Your task to perform on an android device: Check the weather Image 0: 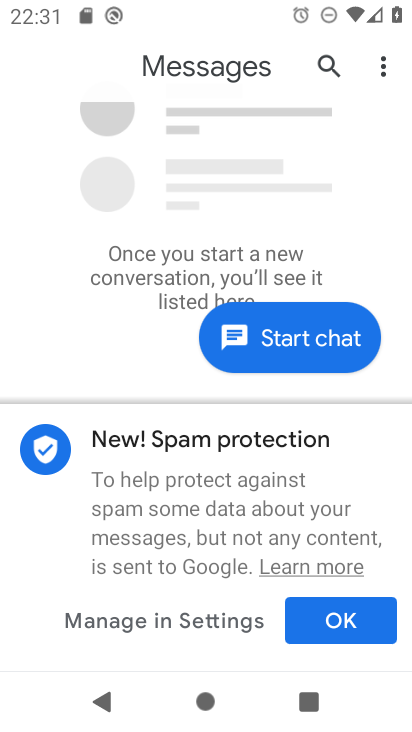
Step 0: press home button
Your task to perform on an android device: Check the weather Image 1: 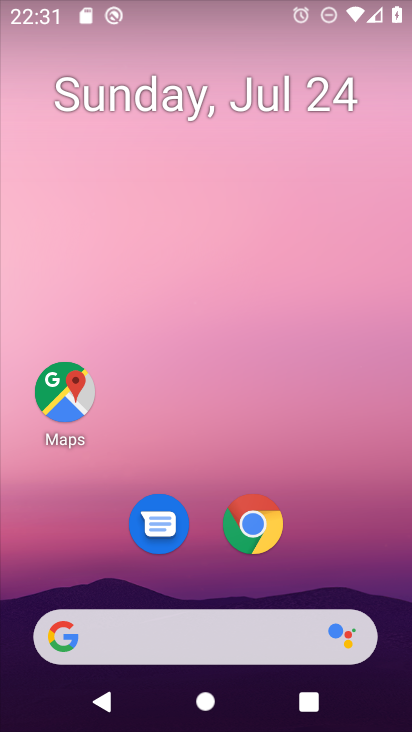
Step 1: drag from (150, 635) to (241, 67)
Your task to perform on an android device: Check the weather Image 2: 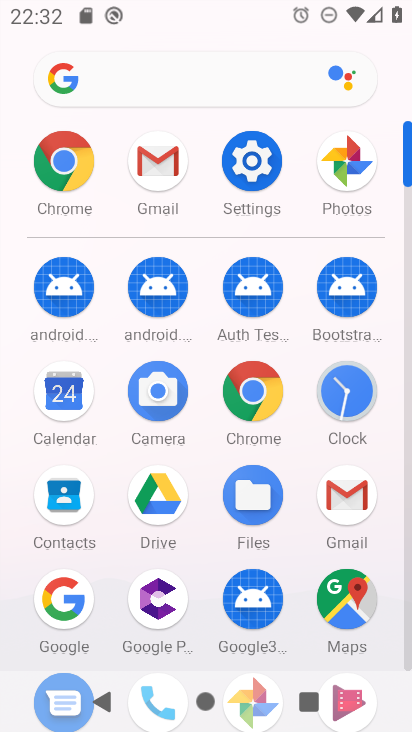
Step 2: click (77, 601)
Your task to perform on an android device: Check the weather Image 3: 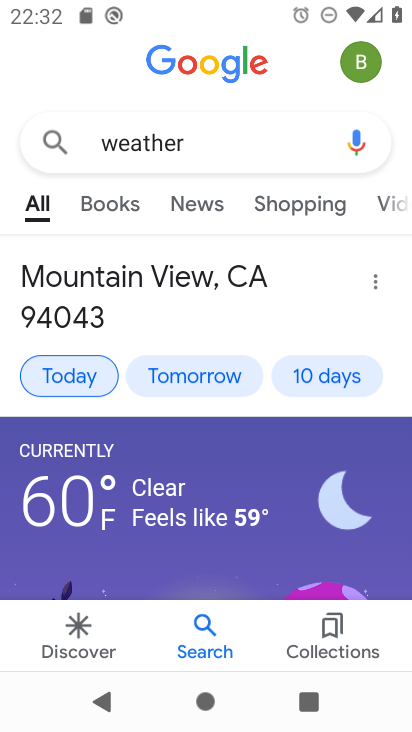
Step 3: task complete